Your task to perform on an android device: Open Android settings Image 0: 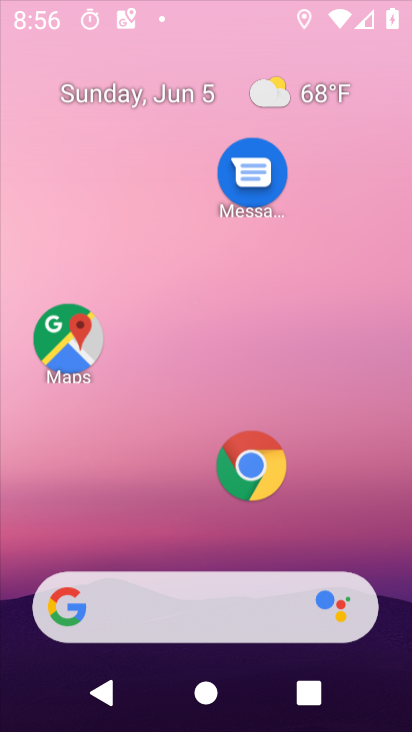
Step 0: drag from (196, 526) to (227, 23)
Your task to perform on an android device: Open Android settings Image 1: 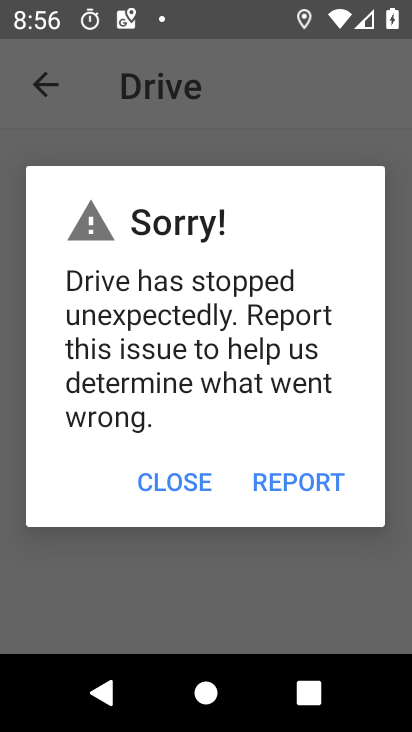
Step 1: press home button
Your task to perform on an android device: Open Android settings Image 2: 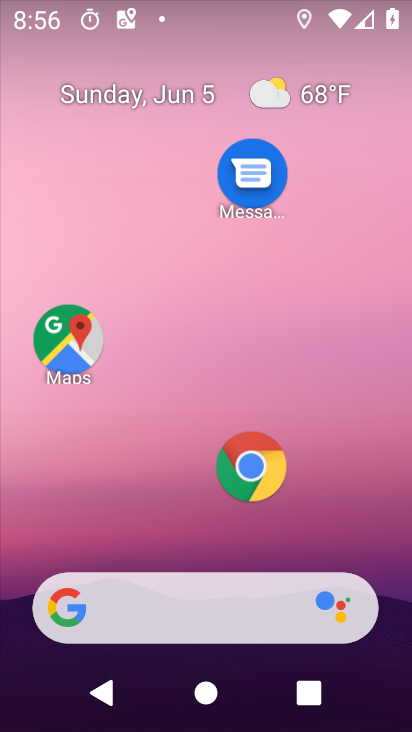
Step 2: click (273, 227)
Your task to perform on an android device: Open Android settings Image 3: 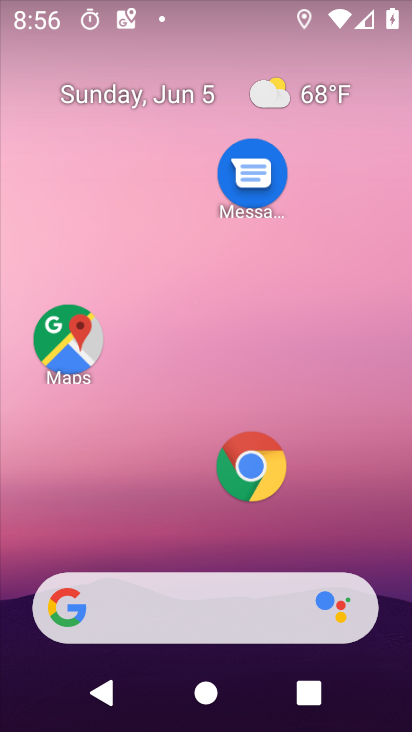
Step 3: drag from (204, 513) to (185, 1)
Your task to perform on an android device: Open Android settings Image 4: 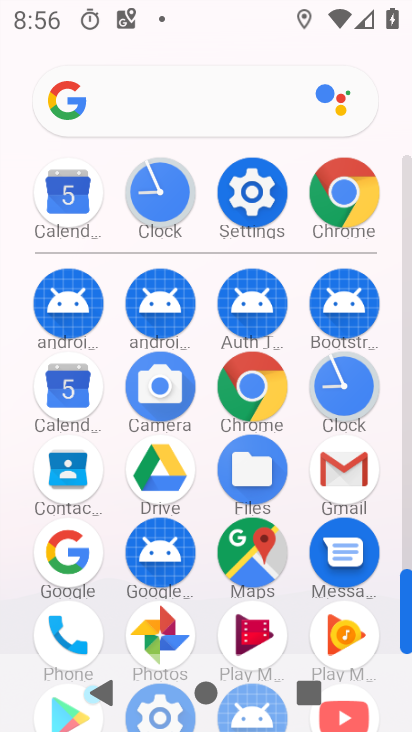
Step 4: click (251, 196)
Your task to perform on an android device: Open Android settings Image 5: 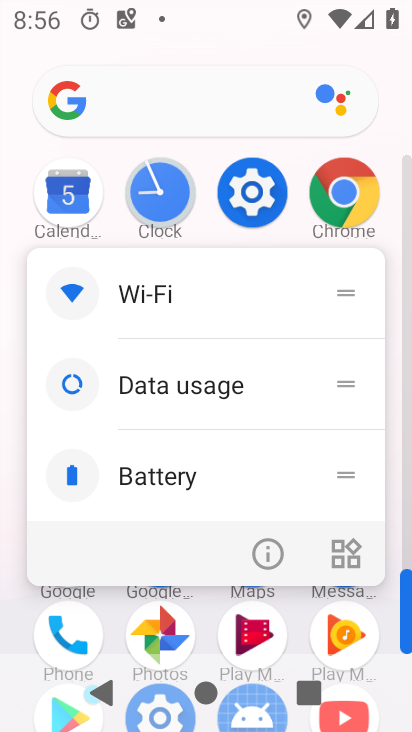
Step 5: click (272, 556)
Your task to perform on an android device: Open Android settings Image 6: 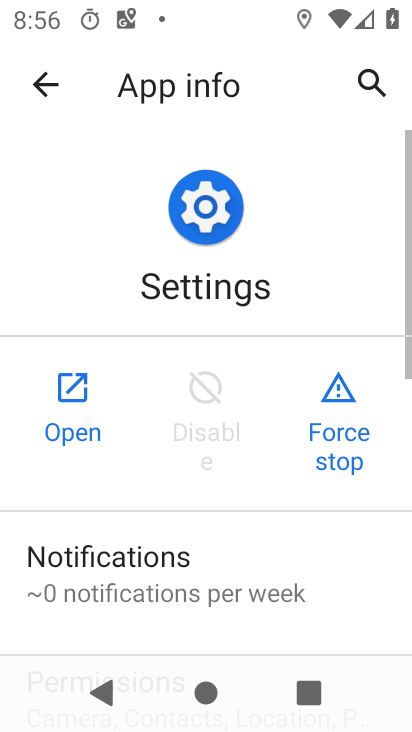
Step 6: click (69, 388)
Your task to perform on an android device: Open Android settings Image 7: 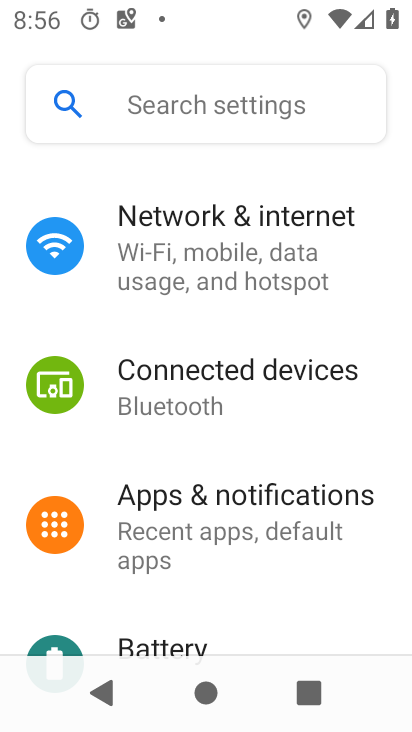
Step 7: drag from (208, 503) to (332, 100)
Your task to perform on an android device: Open Android settings Image 8: 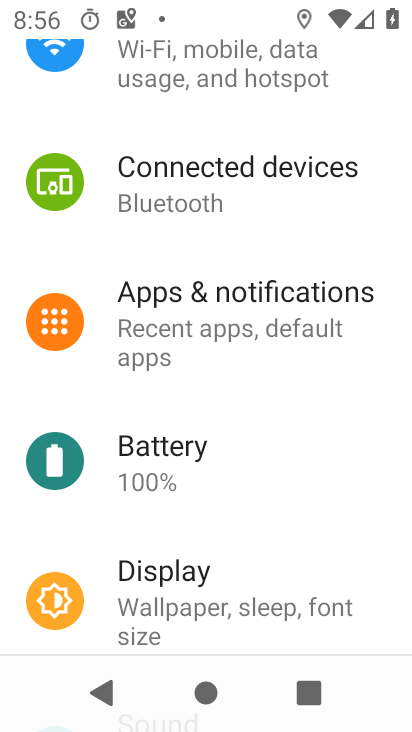
Step 8: drag from (245, 548) to (344, 114)
Your task to perform on an android device: Open Android settings Image 9: 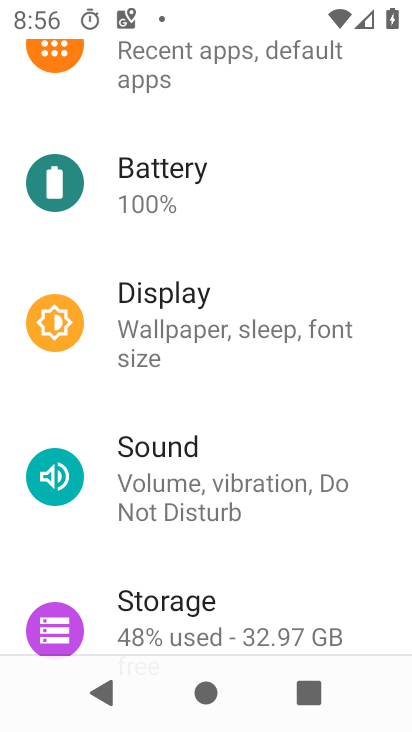
Step 9: drag from (232, 569) to (365, 169)
Your task to perform on an android device: Open Android settings Image 10: 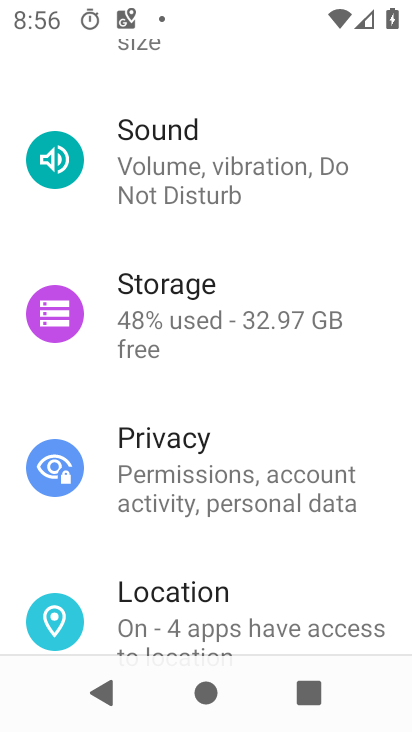
Step 10: drag from (218, 598) to (368, 180)
Your task to perform on an android device: Open Android settings Image 11: 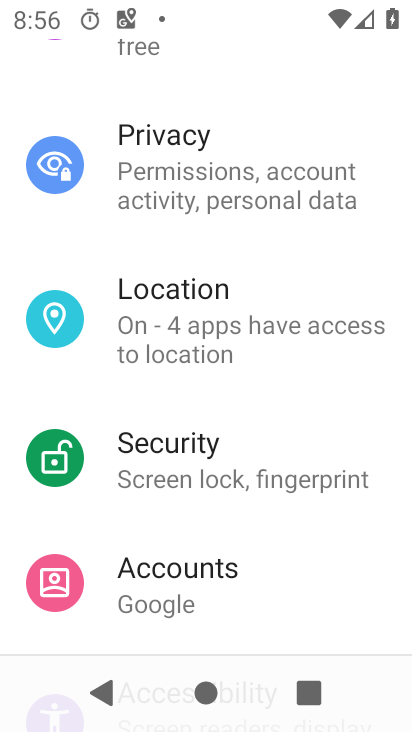
Step 11: drag from (244, 582) to (370, 7)
Your task to perform on an android device: Open Android settings Image 12: 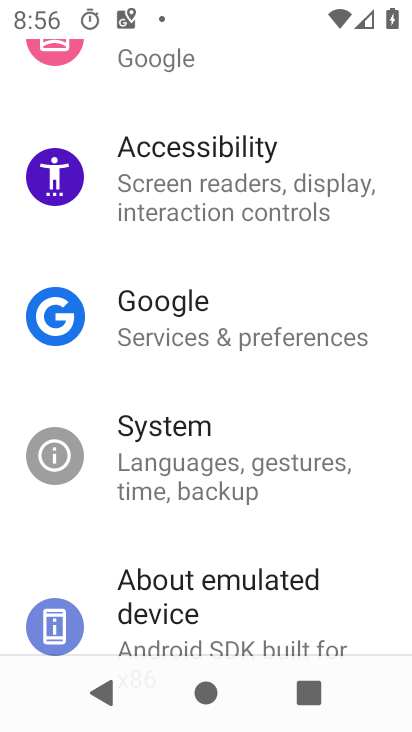
Step 12: drag from (140, 584) to (201, 174)
Your task to perform on an android device: Open Android settings Image 13: 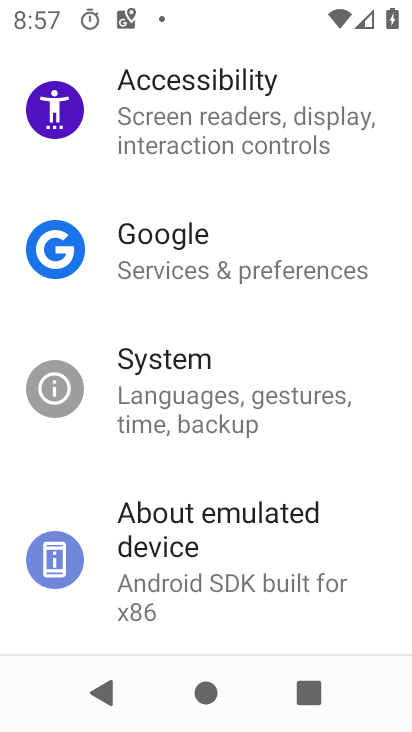
Step 13: click (172, 507)
Your task to perform on an android device: Open Android settings Image 14: 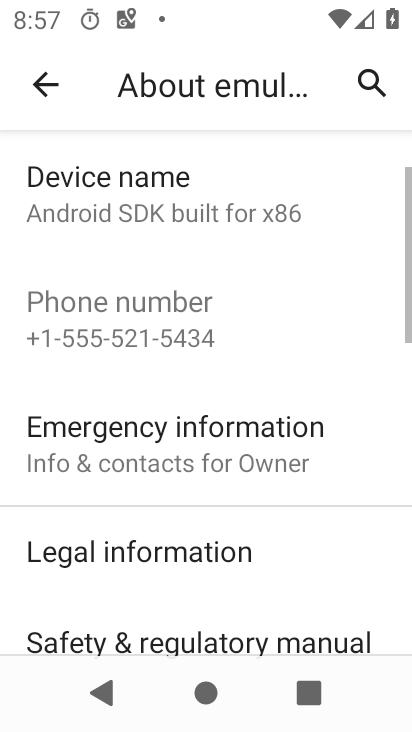
Step 14: drag from (244, 477) to (265, 90)
Your task to perform on an android device: Open Android settings Image 15: 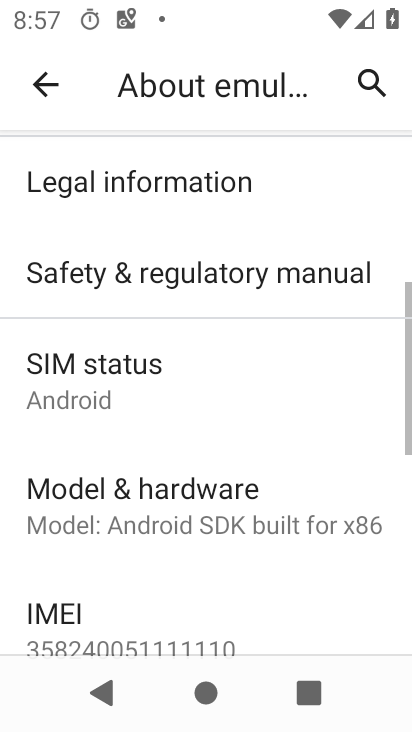
Step 15: drag from (225, 581) to (354, 81)
Your task to perform on an android device: Open Android settings Image 16: 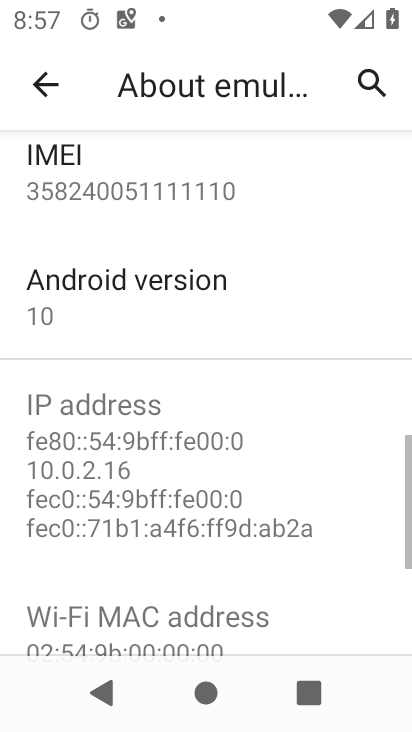
Step 16: click (149, 302)
Your task to perform on an android device: Open Android settings Image 17: 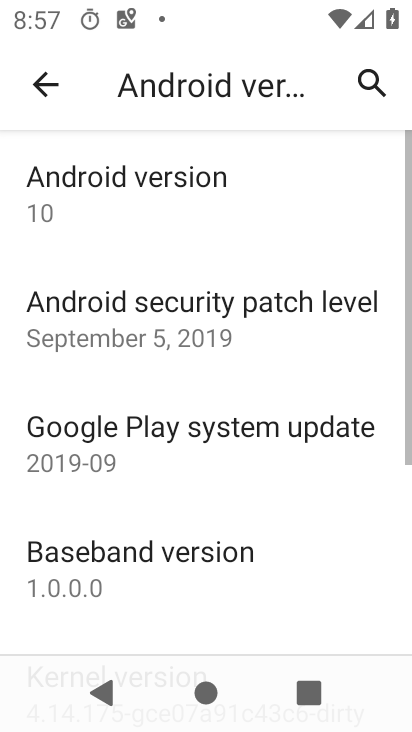
Step 17: drag from (238, 547) to (374, 129)
Your task to perform on an android device: Open Android settings Image 18: 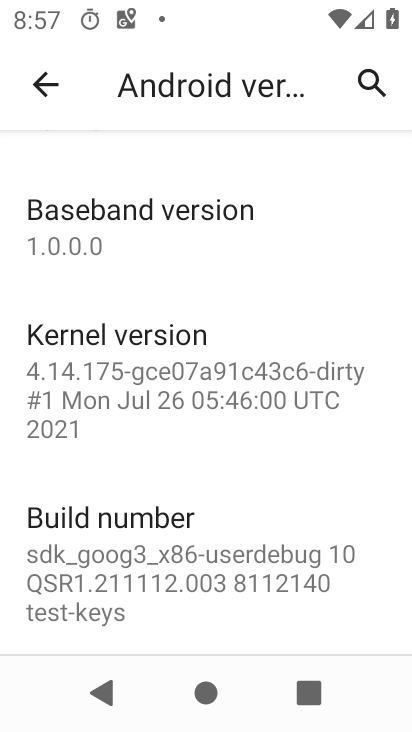
Step 18: drag from (209, 236) to (199, 718)
Your task to perform on an android device: Open Android settings Image 19: 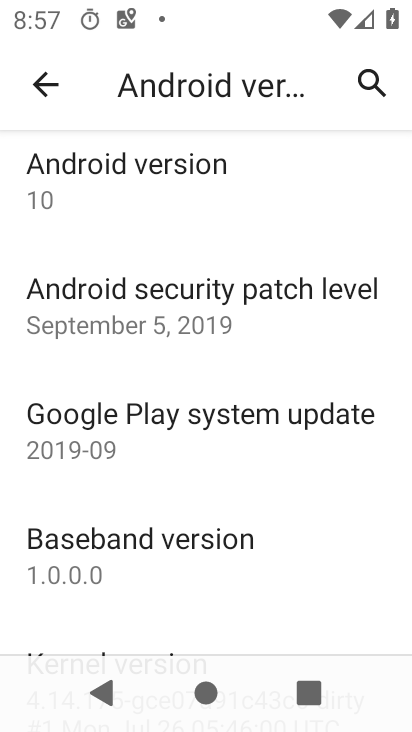
Step 19: click (156, 192)
Your task to perform on an android device: Open Android settings Image 20: 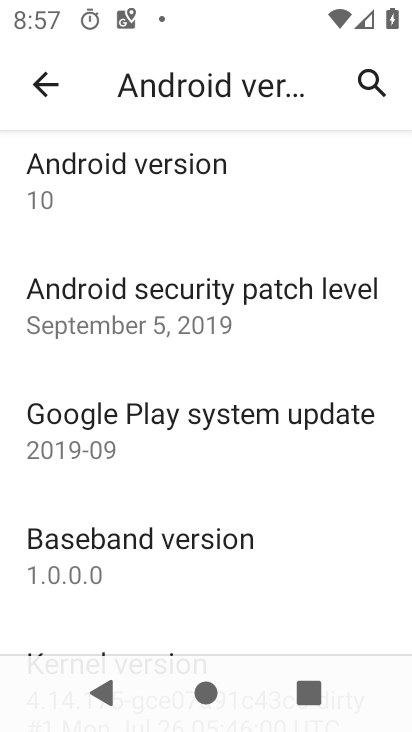
Step 20: task complete